Your task to perform on an android device: Go to wifi settings Image 0: 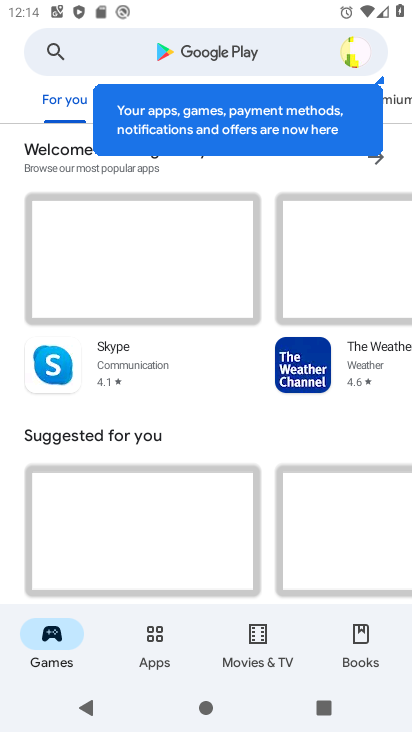
Step 0: press home button
Your task to perform on an android device: Go to wifi settings Image 1: 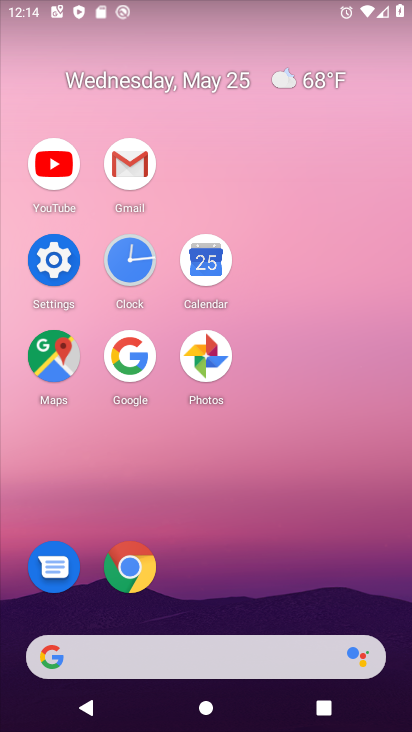
Step 1: click (72, 272)
Your task to perform on an android device: Go to wifi settings Image 2: 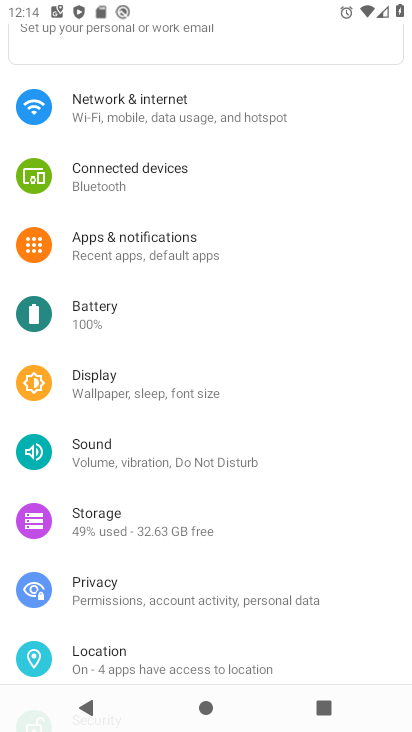
Step 2: click (221, 130)
Your task to perform on an android device: Go to wifi settings Image 3: 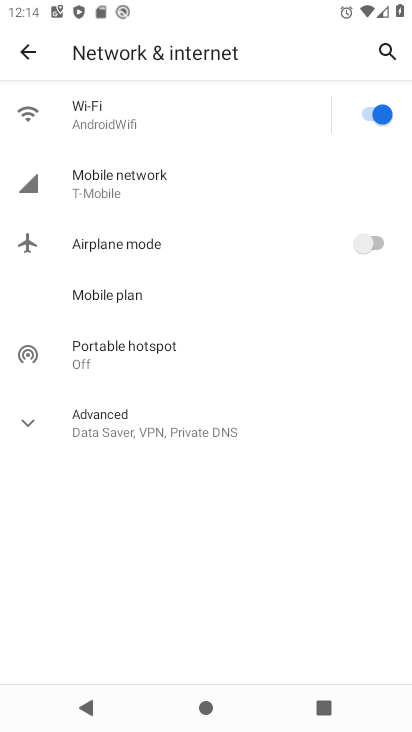
Step 3: click (221, 130)
Your task to perform on an android device: Go to wifi settings Image 4: 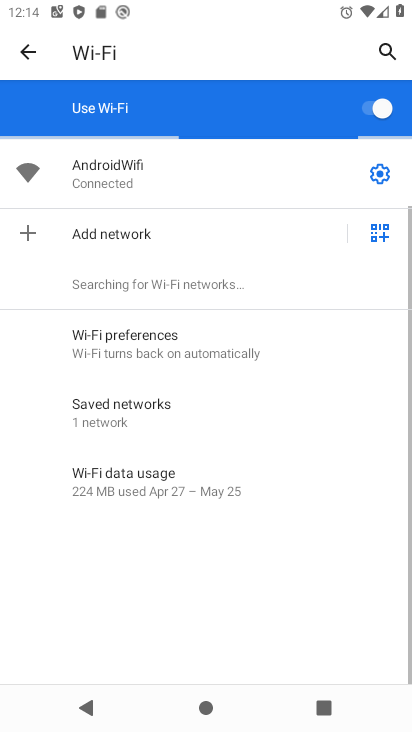
Step 4: click (379, 173)
Your task to perform on an android device: Go to wifi settings Image 5: 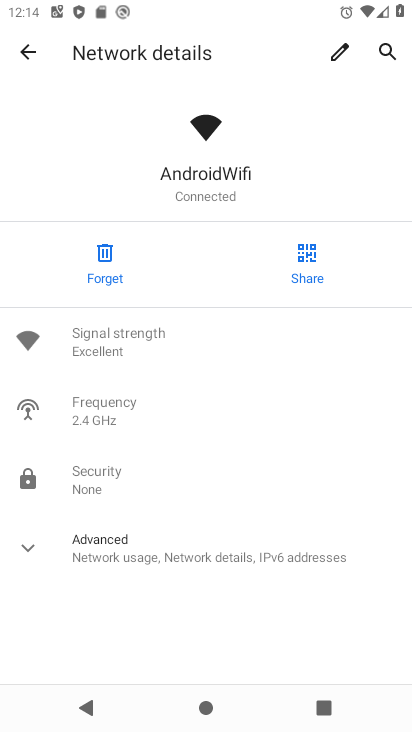
Step 5: task complete